Your task to perform on an android device: move an email to a new category in the gmail app Image 0: 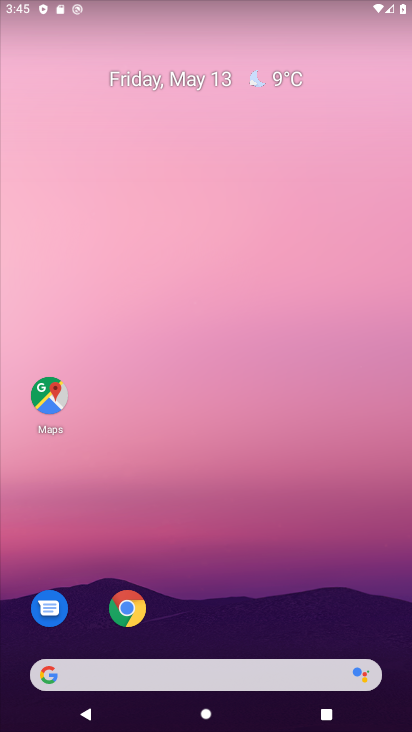
Step 0: drag from (251, 525) to (253, 307)
Your task to perform on an android device: move an email to a new category in the gmail app Image 1: 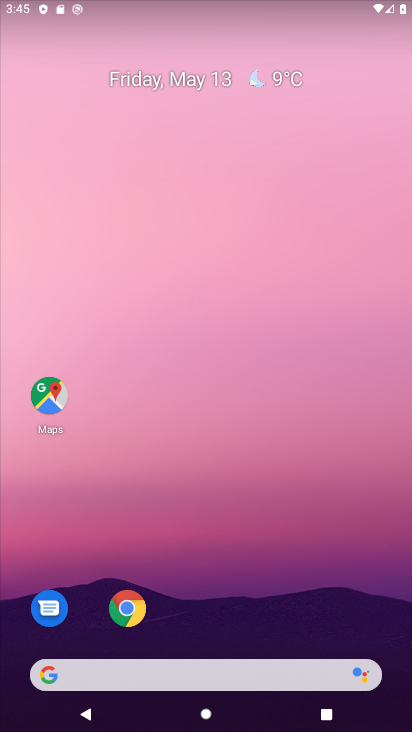
Step 1: drag from (212, 653) to (249, 249)
Your task to perform on an android device: move an email to a new category in the gmail app Image 2: 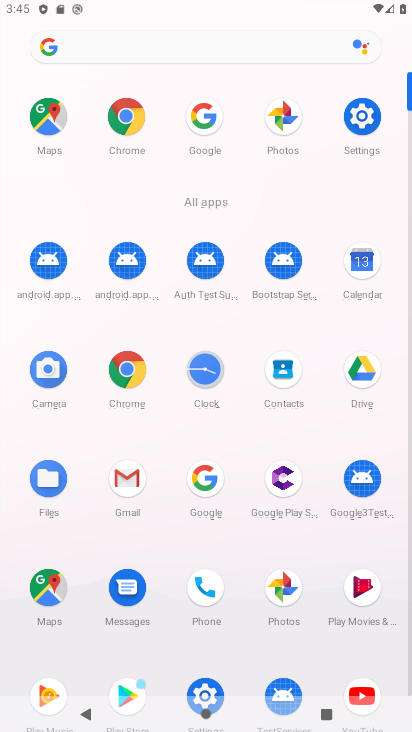
Step 2: click (116, 482)
Your task to perform on an android device: move an email to a new category in the gmail app Image 3: 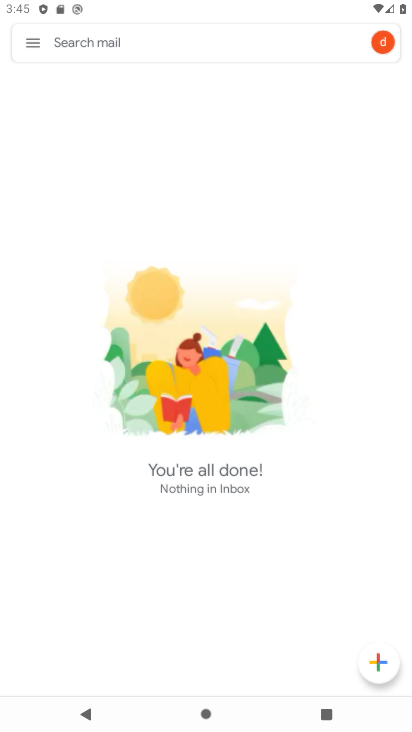
Step 3: click (124, 484)
Your task to perform on an android device: move an email to a new category in the gmail app Image 4: 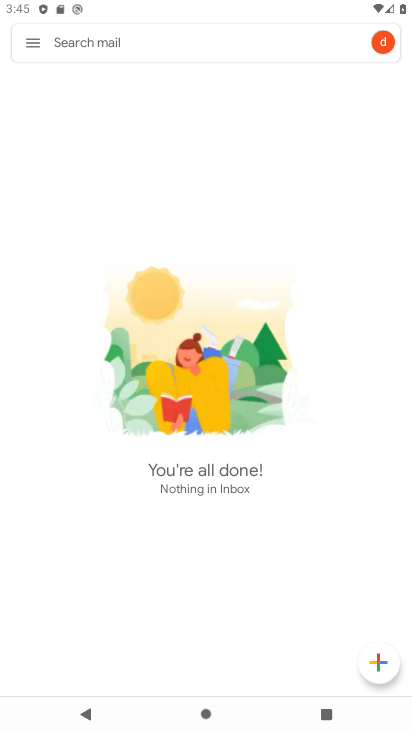
Step 4: task complete